Your task to perform on an android device: Go to Maps Image 0: 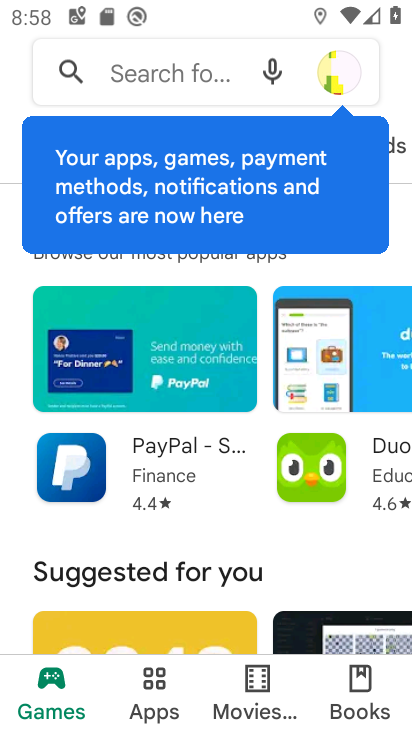
Step 0: press home button
Your task to perform on an android device: Go to Maps Image 1: 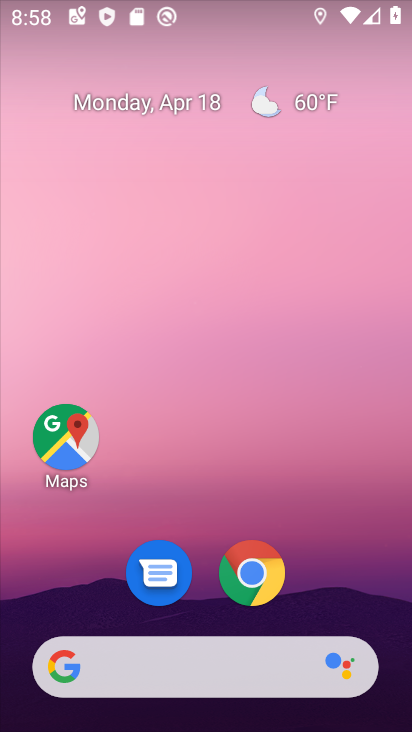
Step 1: click (69, 433)
Your task to perform on an android device: Go to Maps Image 2: 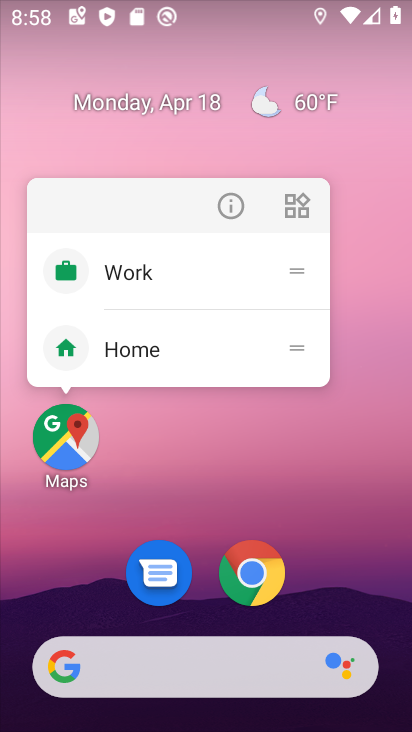
Step 2: click (70, 436)
Your task to perform on an android device: Go to Maps Image 3: 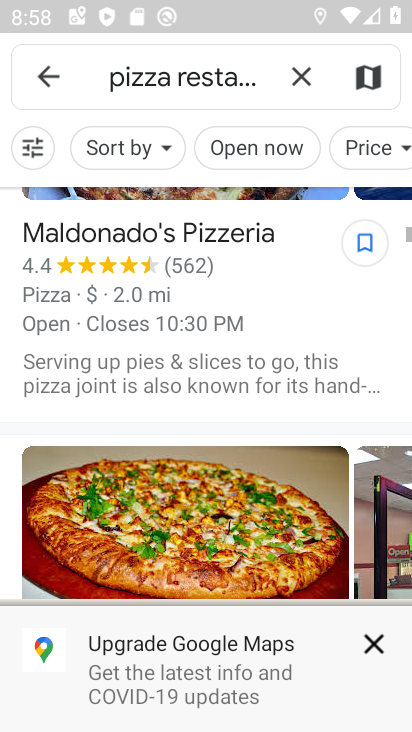
Step 3: click (46, 73)
Your task to perform on an android device: Go to Maps Image 4: 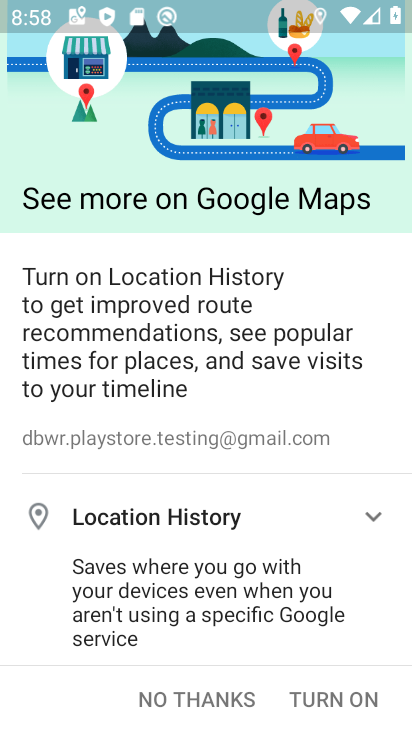
Step 4: task complete